Your task to perform on an android device: Search for good Thai restaurants Image 0: 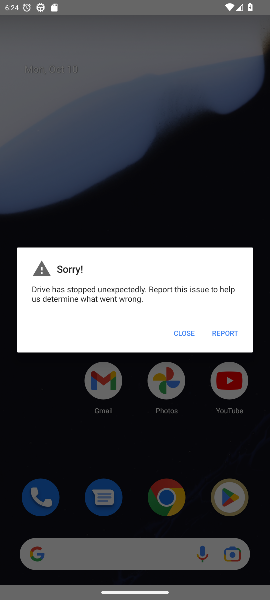
Step 0: click (179, 332)
Your task to perform on an android device: Search for good Thai restaurants Image 1: 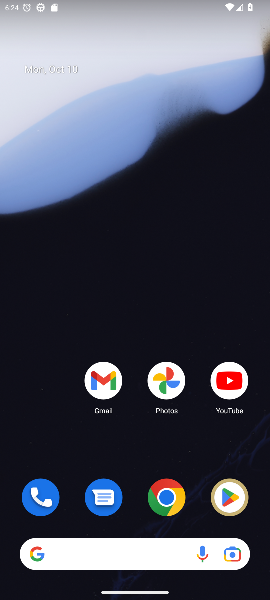
Step 1: drag from (128, 491) to (152, 206)
Your task to perform on an android device: Search for good Thai restaurants Image 2: 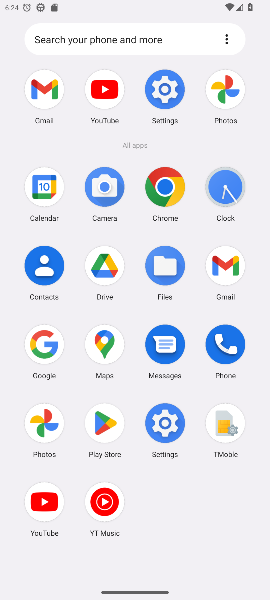
Step 2: click (45, 342)
Your task to perform on an android device: Search for good Thai restaurants Image 3: 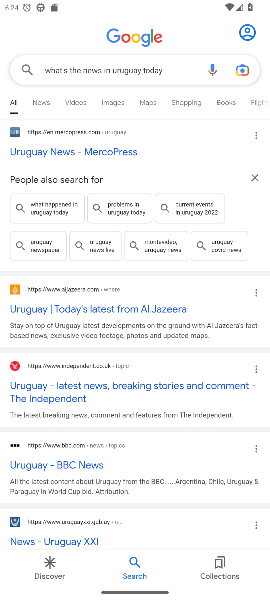
Step 3: click (167, 63)
Your task to perform on an android device: Search for good Thai restaurants Image 4: 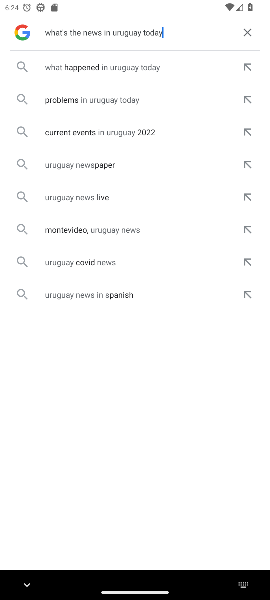
Step 4: click (241, 34)
Your task to perform on an android device: Search for good Thai restaurants Image 5: 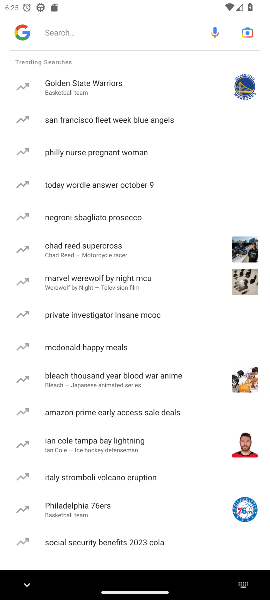
Step 5: click (135, 29)
Your task to perform on an android device: Search for good Thai restaurants Image 6: 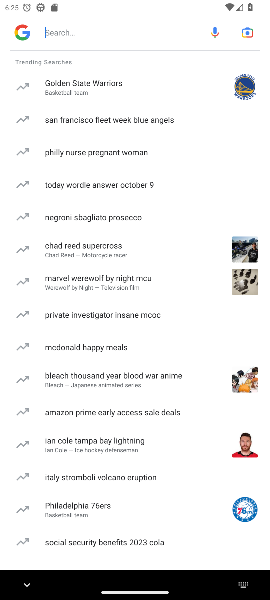
Step 6: type "Search for good Thai restaurants "
Your task to perform on an android device: Search for good Thai restaurants Image 7: 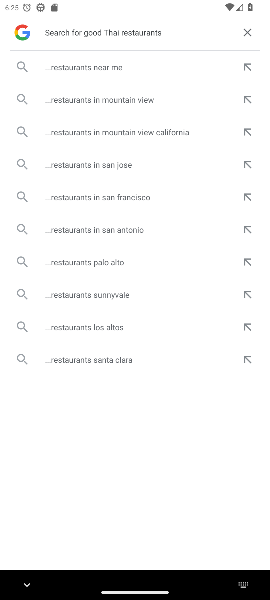
Step 7: click (100, 62)
Your task to perform on an android device: Search for good Thai restaurants Image 8: 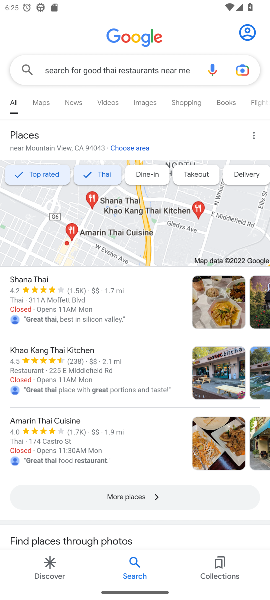
Step 8: task complete